Your task to perform on an android device: Open the calendar and show me this week's events? Image 0: 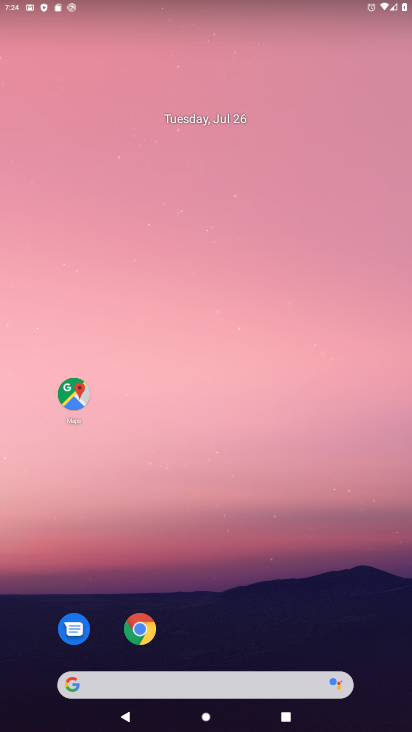
Step 0: drag from (282, 640) to (294, 72)
Your task to perform on an android device: Open the calendar and show me this week's events? Image 1: 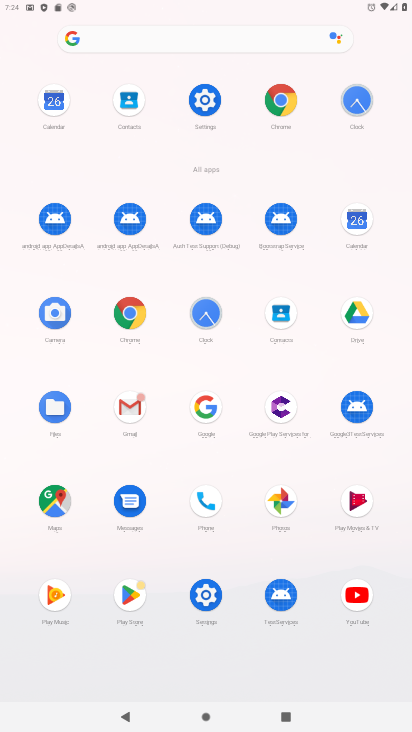
Step 1: click (359, 219)
Your task to perform on an android device: Open the calendar and show me this week's events? Image 2: 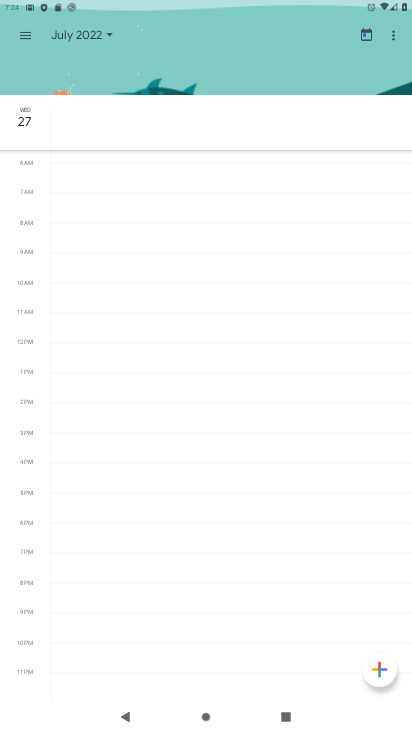
Step 2: click (25, 31)
Your task to perform on an android device: Open the calendar and show me this week's events? Image 3: 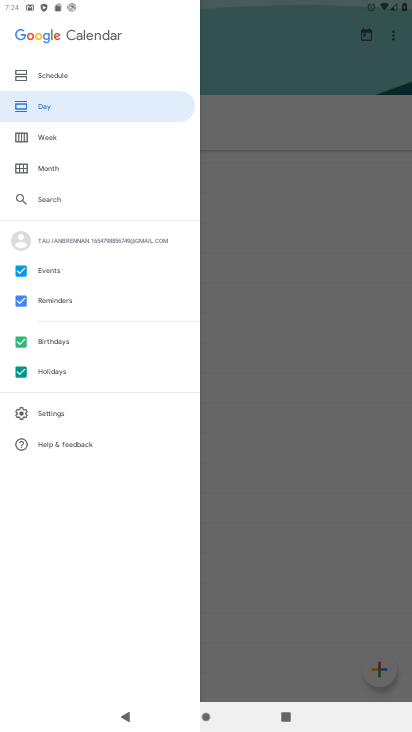
Step 3: click (39, 377)
Your task to perform on an android device: Open the calendar and show me this week's events? Image 4: 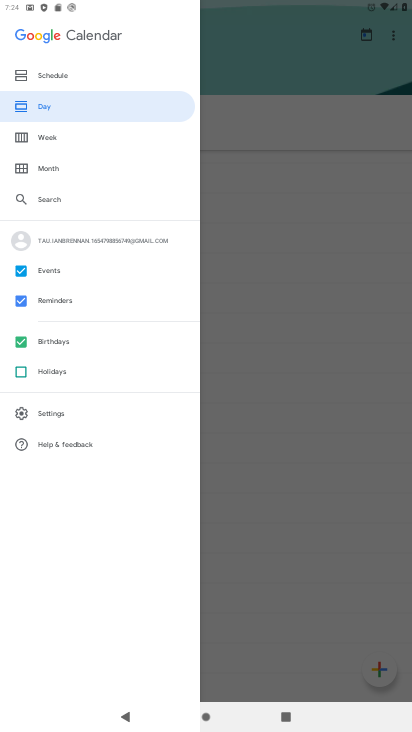
Step 4: click (52, 339)
Your task to perform on an android device: Open the calendar and show me this week's events? Image 5: 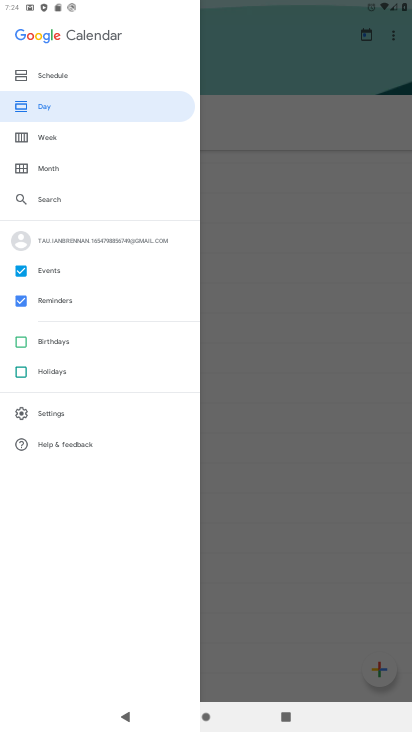
Step 5: click (56, 299)
Your task to perform on an android device: Open the calendar and show me this week's events? Image 6: 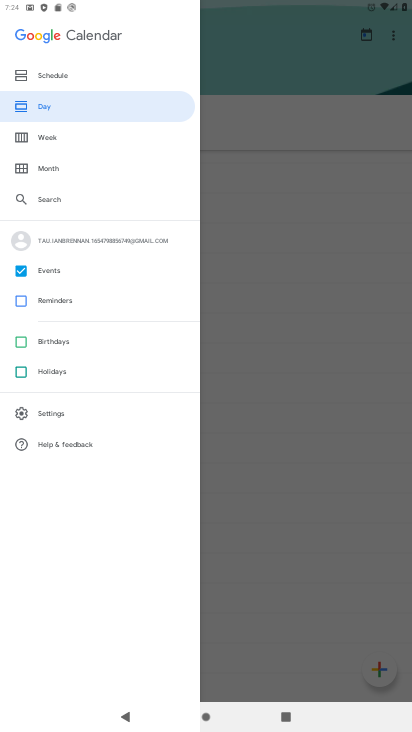
Step 6: click (55, 137)
Your task to perform on an android device: Open the calendar and show me this week's events? Image 7: 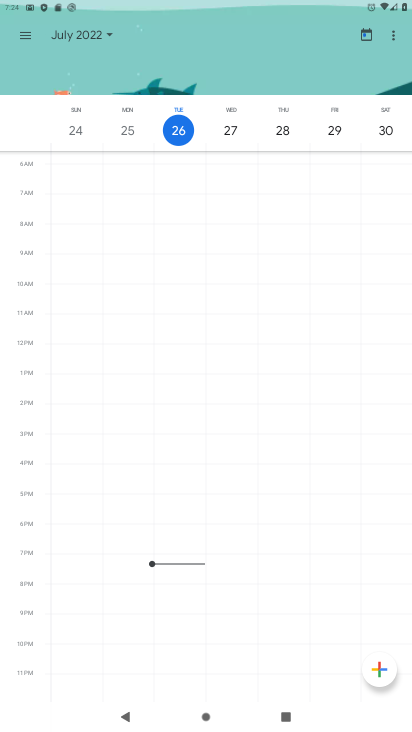
Step 7: task complete